Your task to perform on an android device: stop showing notifications on the lock screen Image 0: 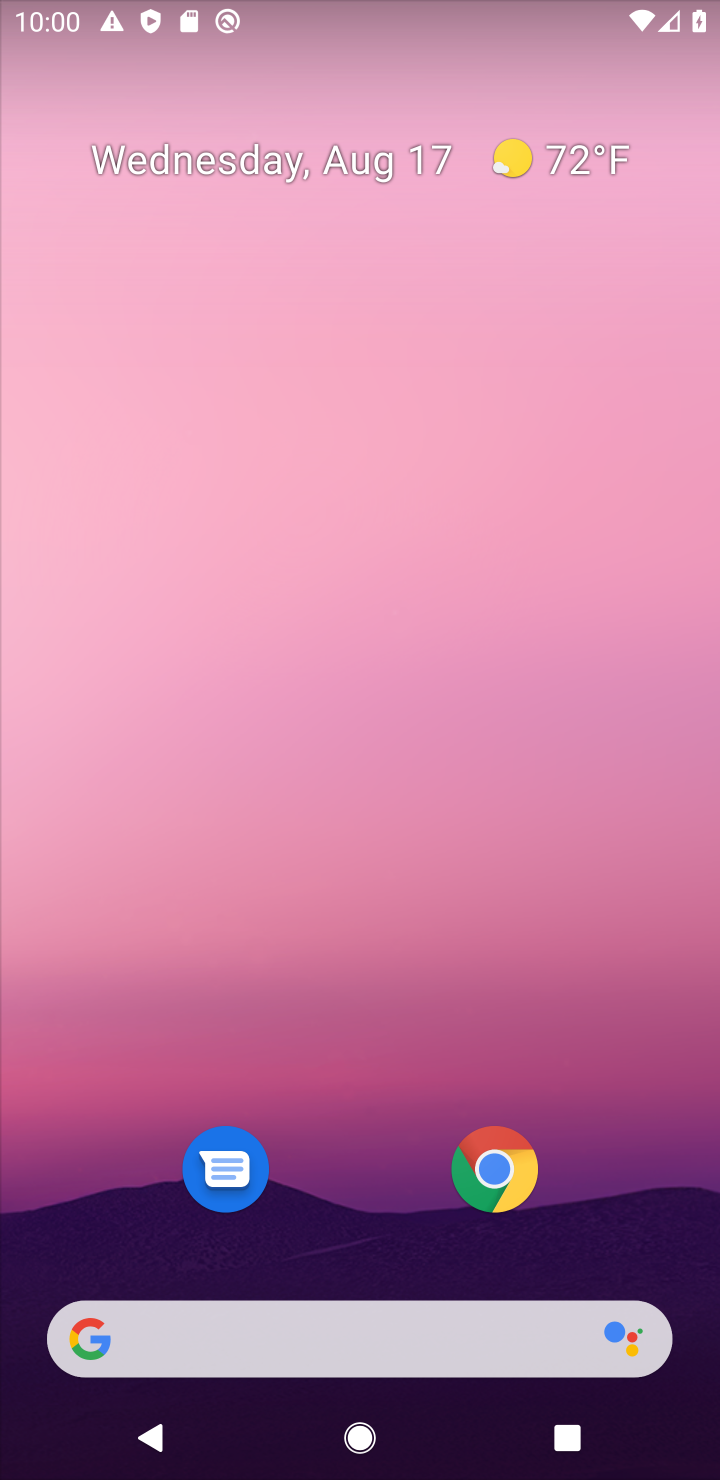
Step 0: drag from (358, 1056) to (383, 88)
Your task to perform on an android device: stop showing notifications on the lock screen Image 1: 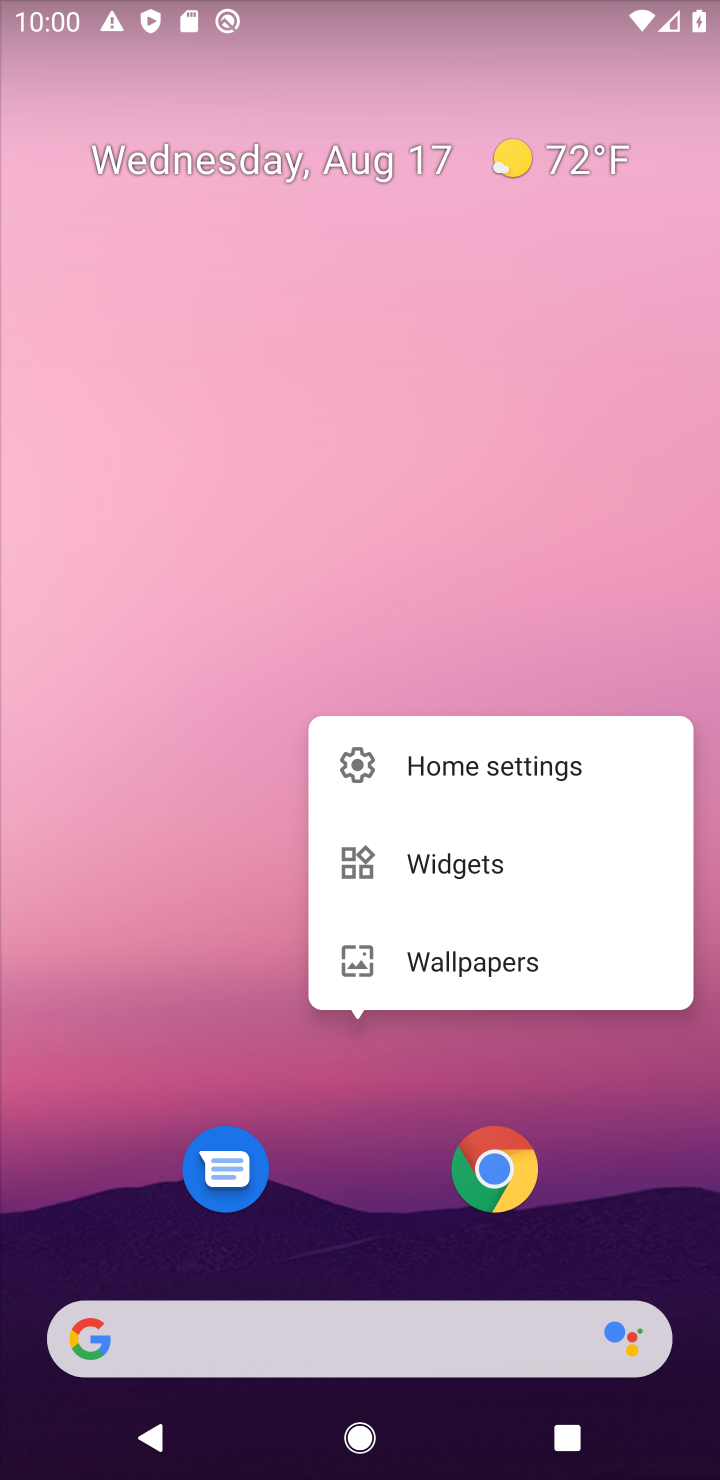
Step 1: click (394, 1088)
Your task to perform on an android device: stop showing notifications on the lock screen Image 2: 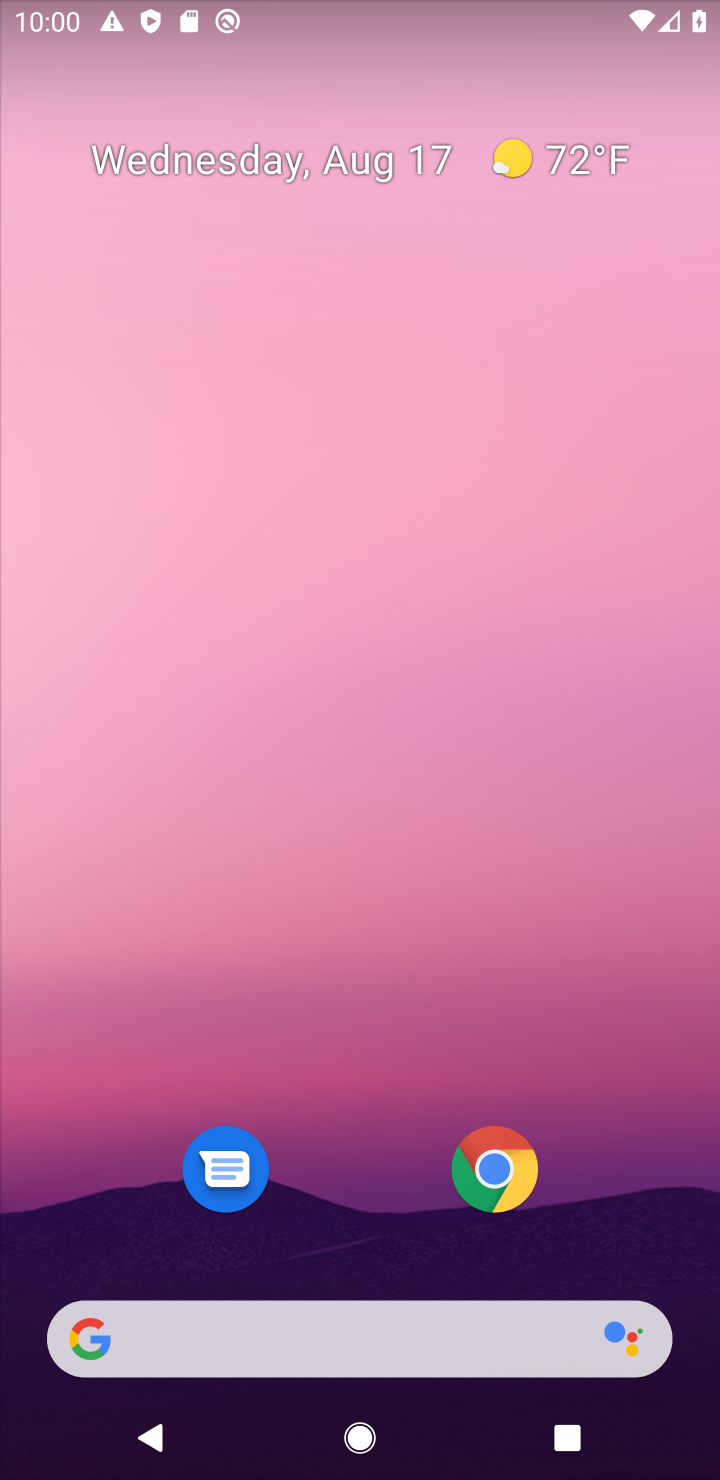
Step 2: click (376, 1149)
Your task to perform on an android device: stop showing notifications on the lock screen Image 3: 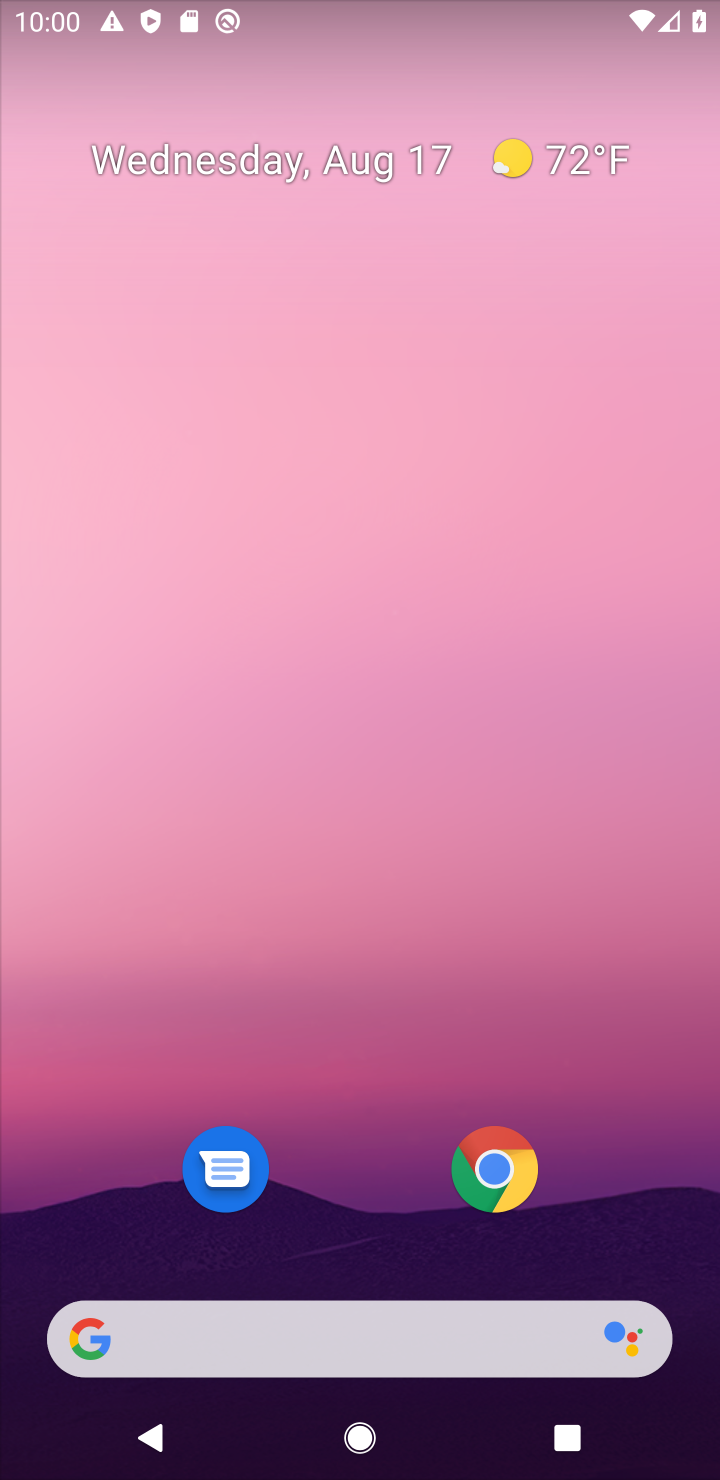
Step 3: task complete